Your task to perform on an android device: Search for Italian restaurants on Maps Image 0: 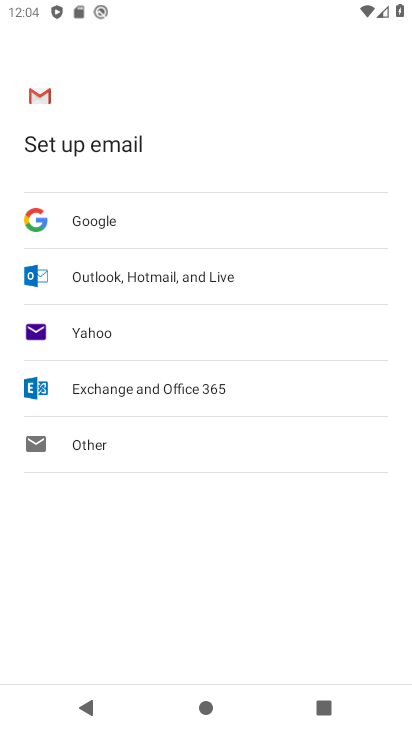
Step 0: press home button
Your task to perform on an android device: Search for Italian restaurants on Maps Image 1: 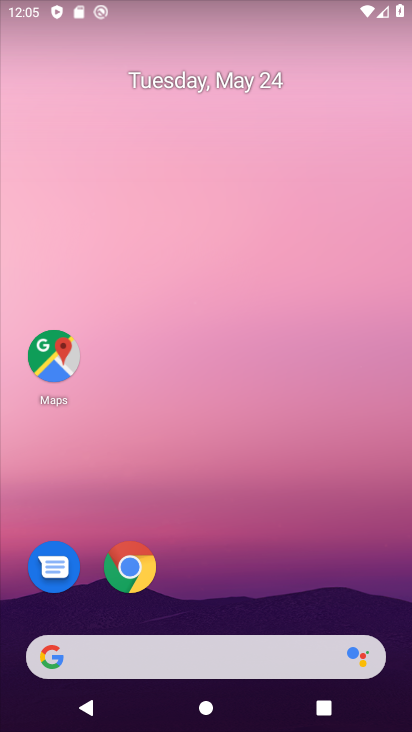
Step 1: click (54, 364)
Your task to perform on an android device: Search for Italian restaurants on Maps Image 2: 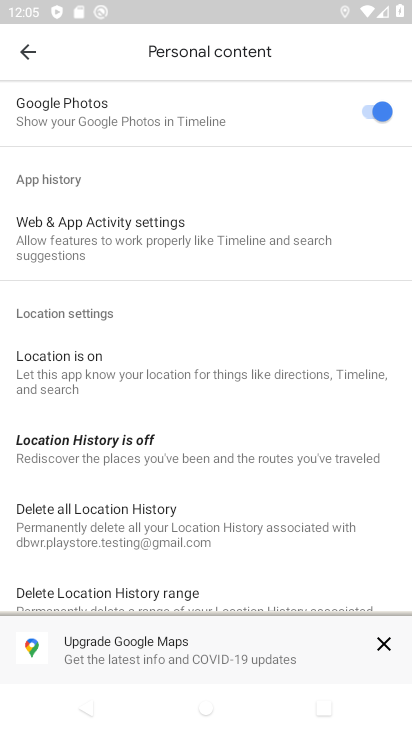
Step 2: click (25, 55)
Your task to perform on an android device: Search for Italian restaurants on Maps Image 3: 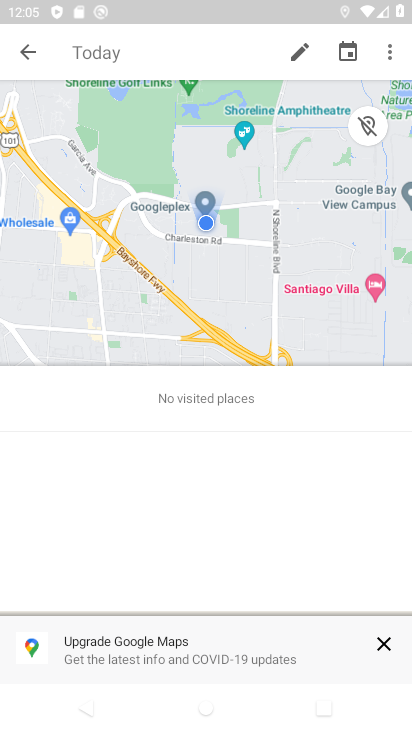
Step 3: click (25, 55)
Your task to perform on an android device: Search for Italian restaurants on Maps Image 4: 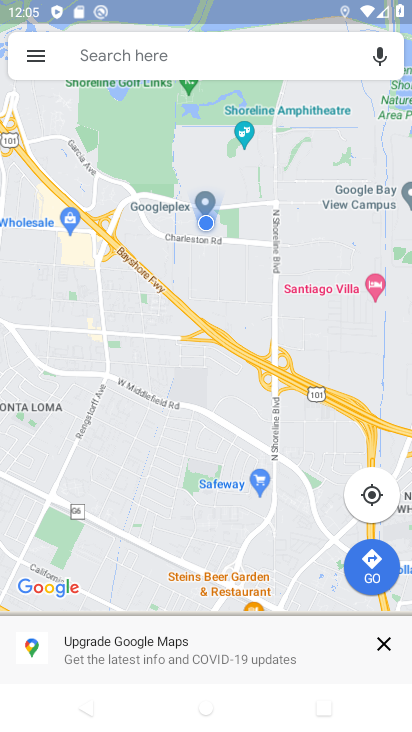
Step 4: click (157, 53)
Your task to perform on an android device: Search for Italian restaurants on Maps Image 5: 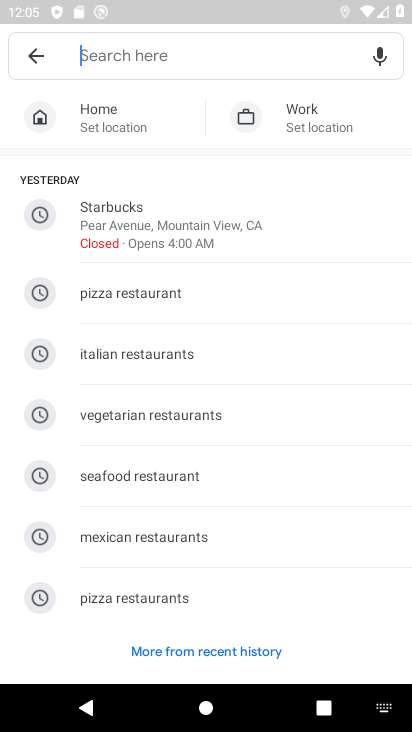
Step 5: click (238, 363)
Your task to perform on an android device: Search for Italian restaurants on Maps Image 6: 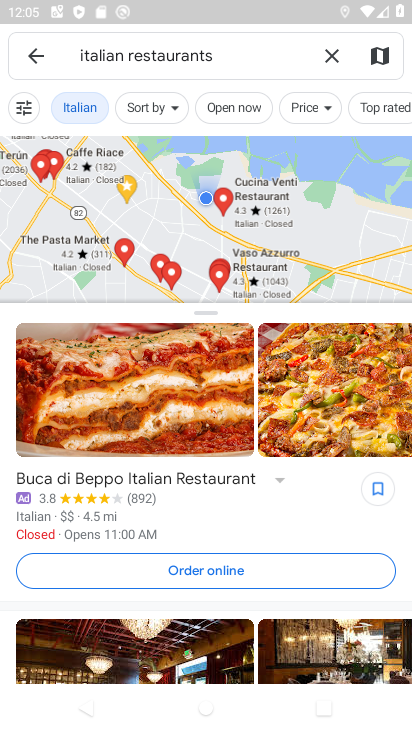
Step 6: task complete